Your task to perform on an android device: delete browsing data in the chrome app Image 0: 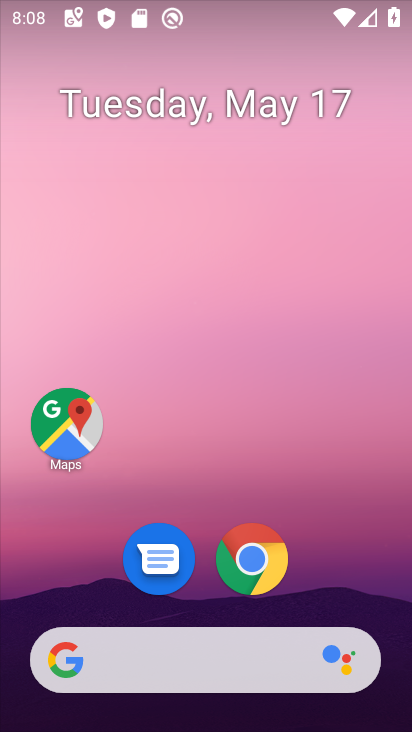
Step 0: click (239, 558)
Your task to perform on an android device: delete browsing data in the chrome app Image 1: 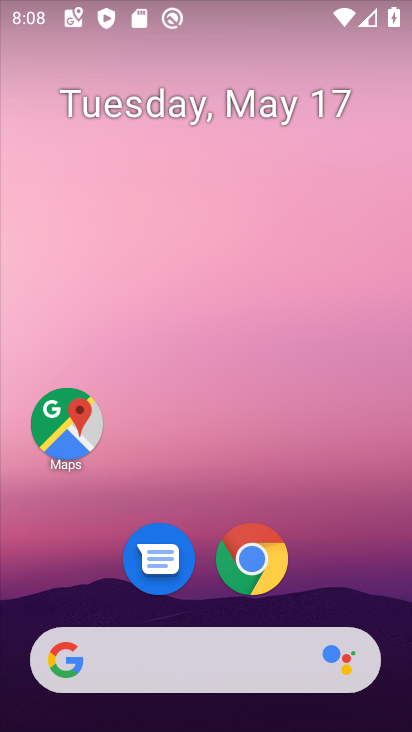
Step 1: click (239, 558)
Your task to perform on an android device: delete browsing data in the chrome app Image 2: 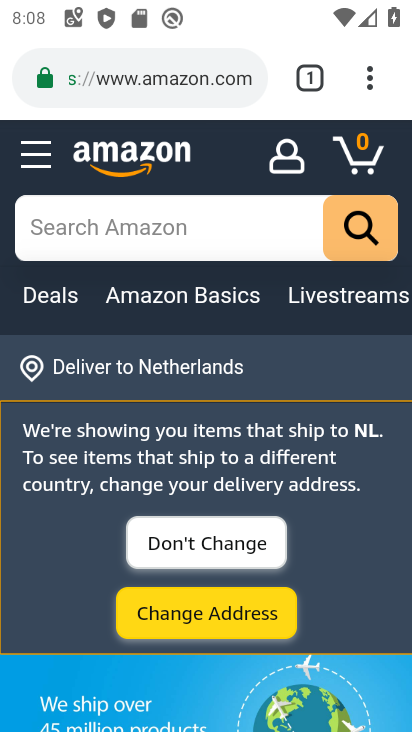
Step 2: click (375, 73)
Your task to perform on an android device: delete browsing data in the chrome app Image 3: 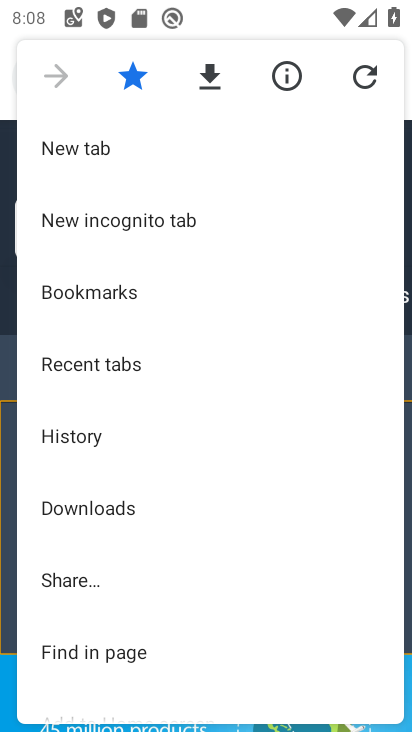
Step 3: click (80, 442)
Your task to perform on an android device: delete browsing data in the chrome app Image 4: 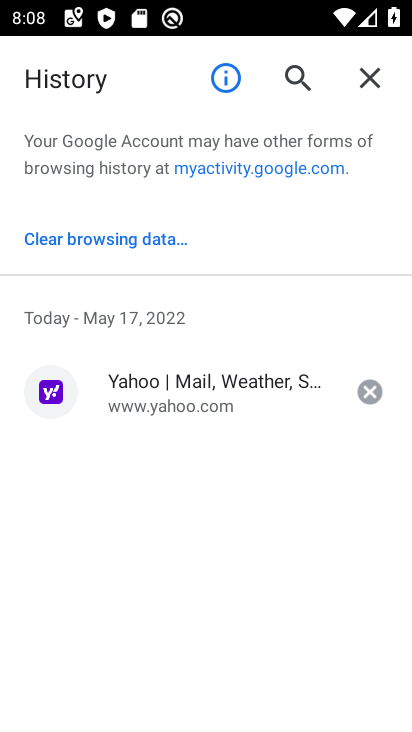
Step 4: click (129, 235)
Your task to perform on an android device: delete browsing data in the chrome app Image 5: 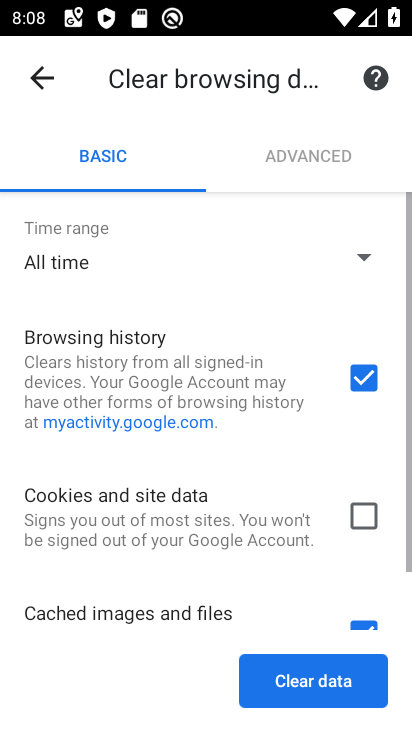
Step 5: click (287, 664)
Your task to perform on an android device: delete browsing data in the chrome app Image 6: 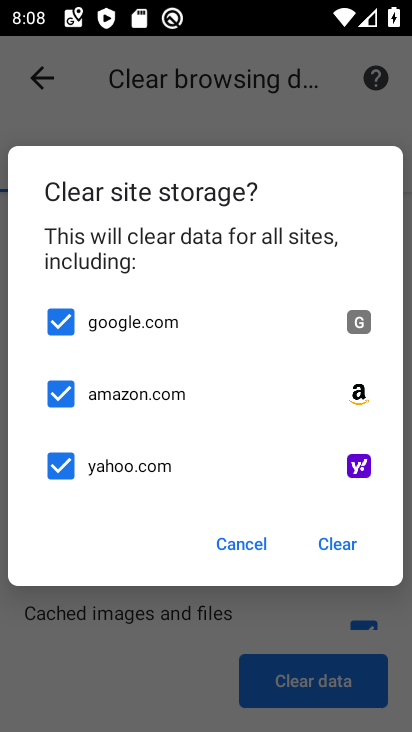
Step 6: click (357, 545)
Your task to perform on an android device: delete browsing data in the chrome app Image 7: 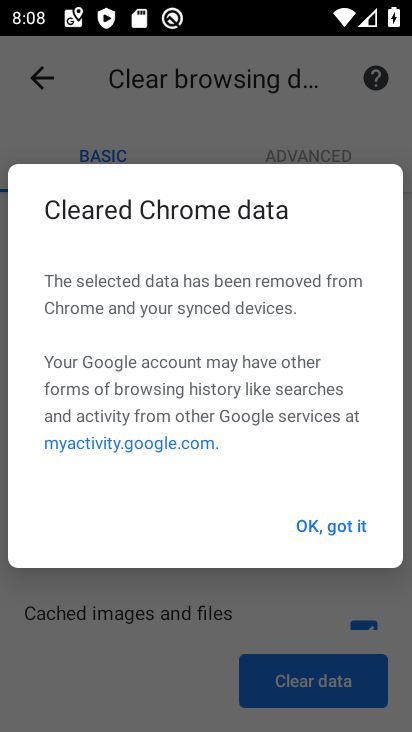
Step 7: click (355, 523)
Your task to perform on an android device: delete browsing data in the chrome app Image 8: 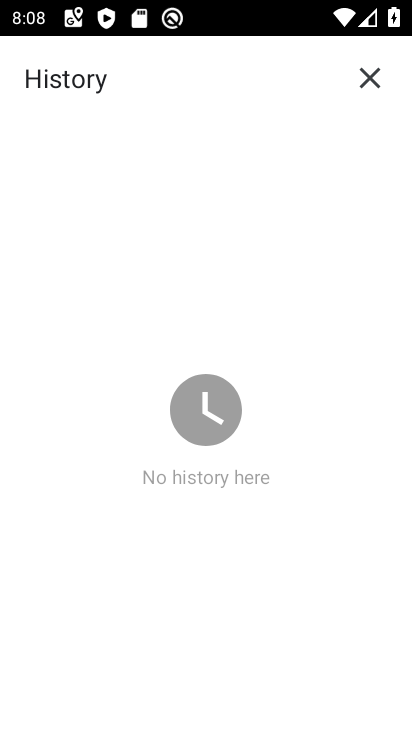
Step 8: task complete